Your task to perform on an android device: uninstall "Facebook Lite" Image 0: 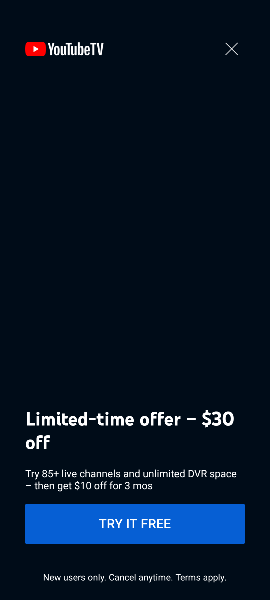
Step 0: press home button
Your task to perform on an android device: uninstall "Facebook Lite" Image 1: 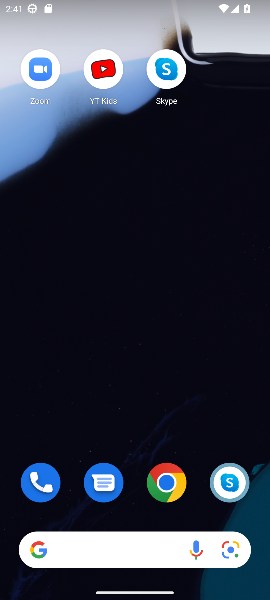
Step 1: drag from (130, 292) to (138, 47)
Your task to perform on an android device: uninstall "Facebook Lite" Image 2: 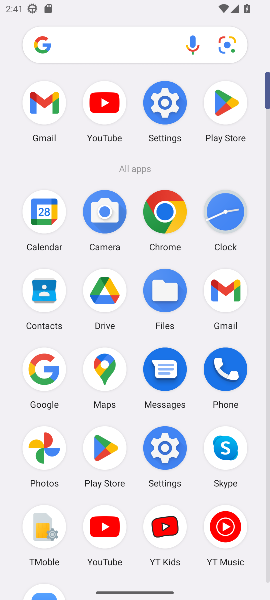
Step 2: click (227, 118)
Your task to perform on an android device: uninstall "Facebook Lite" Image 3: 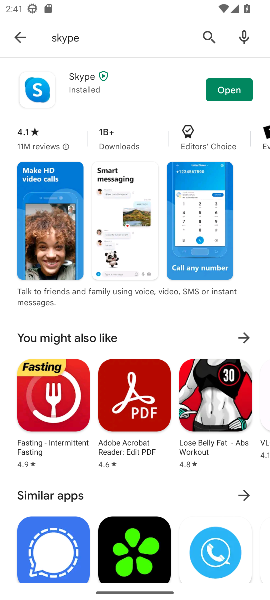
Step 3: click (26, 37)
Your task to perform on an android device: uninstall "Facebook Lite" Image 4: 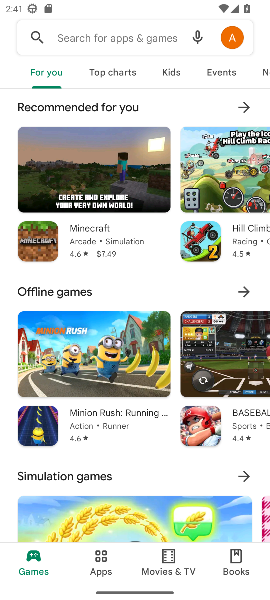
Step 4: click (69, 35)
Your task to perform on an android device: uninstall "Facebook Lite" Image 5: 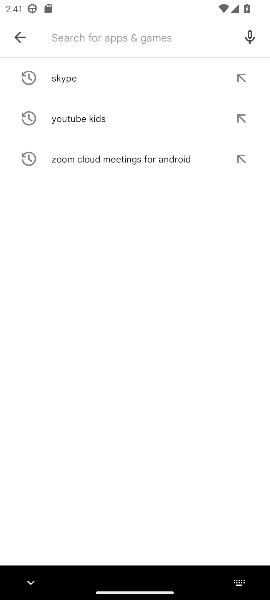
Step 5: type "facebook lite"
Your task to perform on an android device: uninstall "Facebook Lite" Image 6: 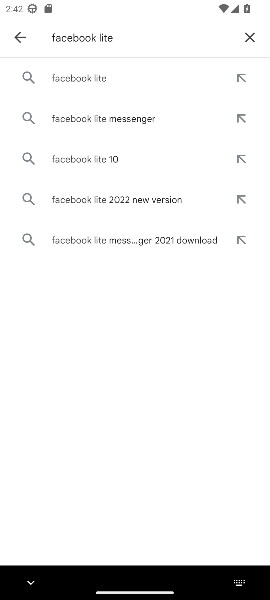
Step 6: click (77, 76)
Your task to perform on an android device: uninstall "Facebook Lite" Image 7: 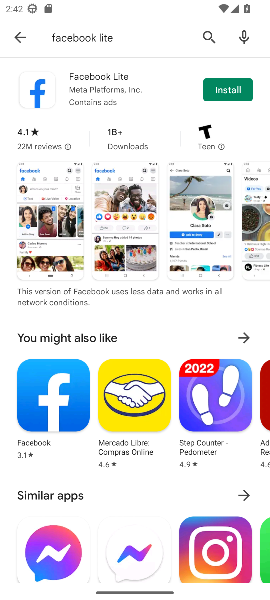
Step 7: task complete